Your task to perform on an android device: When is my next appointment? Image 0: 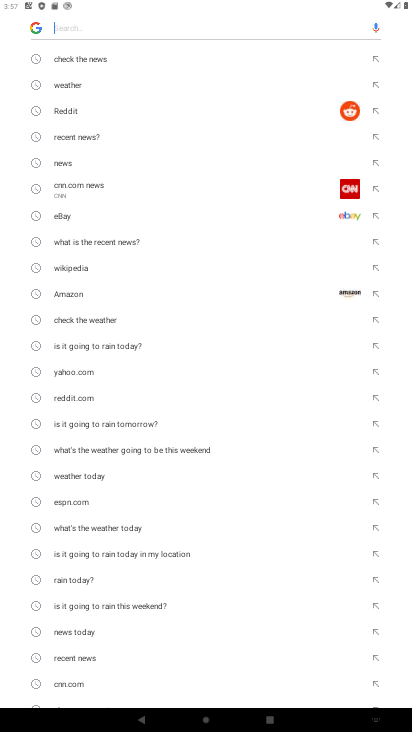
Step 0: press home button
Your task to perform on an android device: When is my next appointment? Image 1: 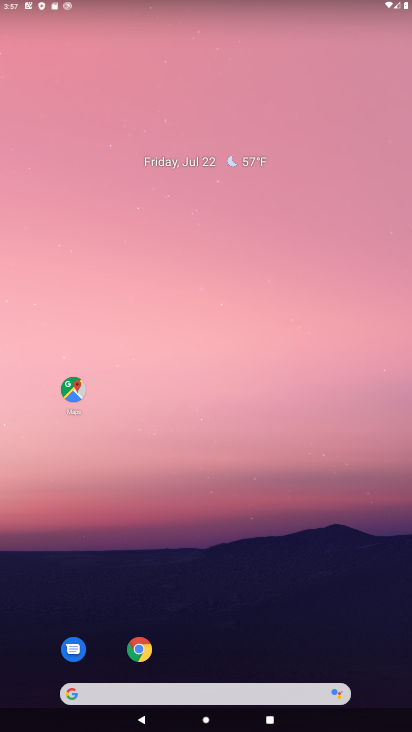
Step 1: click (112, 697)
Your task to perform on an android device: When is my next appointment? Image 2: 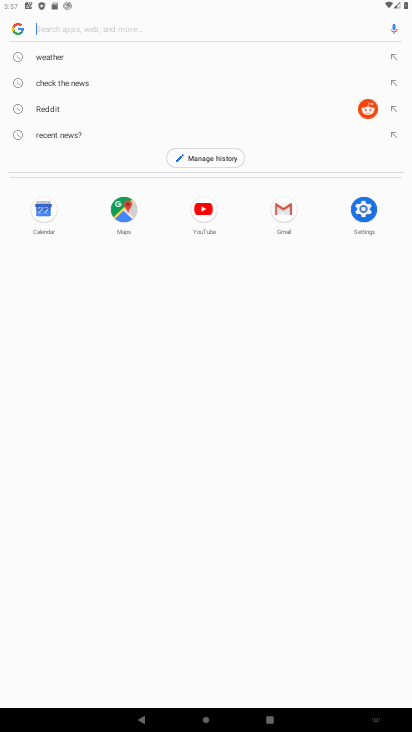
Step 2: press home button
Your task to perform on an android device: When is my next appointment? Image 3: 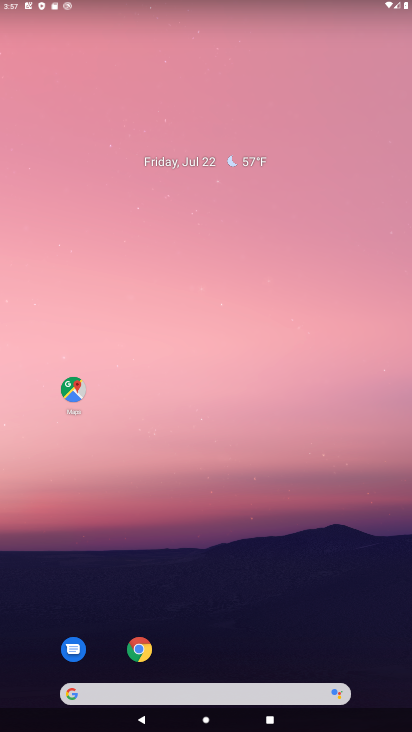
Step 3: drag from (24, 689) to (178, 267)
Your task to perform on an android device: When is my next appointment? Image 4: 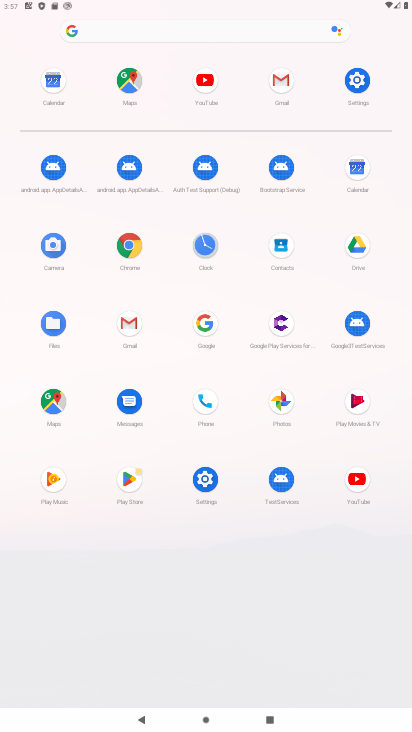
Step 4: click (352, 166)
Your task to perform on an android device: When is my next appointment? Image 5: 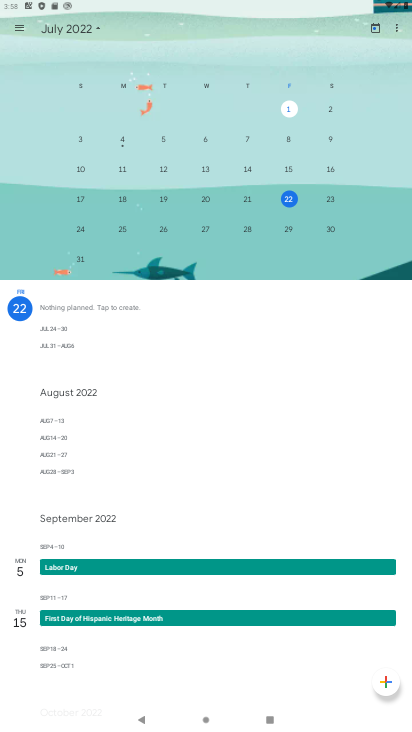
Step 5: task complete